Your task to perform on an android device: Show me popular videos on Youtube Image 0: 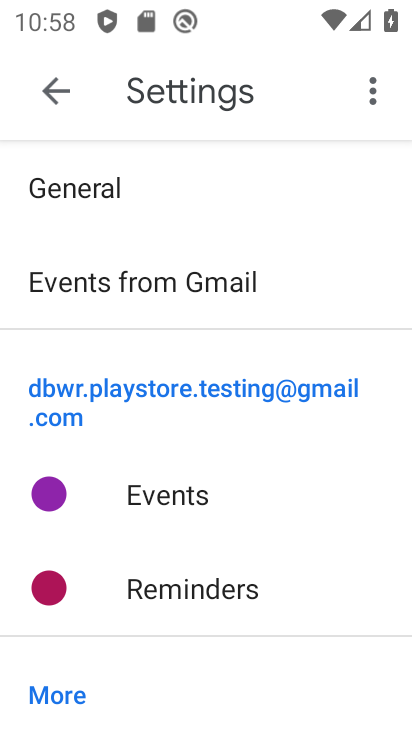
Step 0: press home button
Your task to perform on an android device: Show me popular videos on Youtube Image 1: 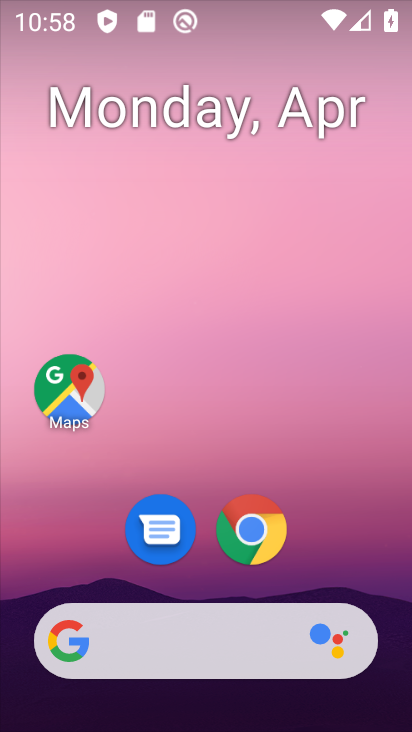
Step 1: drag from (354, 589) to (131, 26)
Your task to perform on an android device: Show me popular videos on Youtube Image 2: 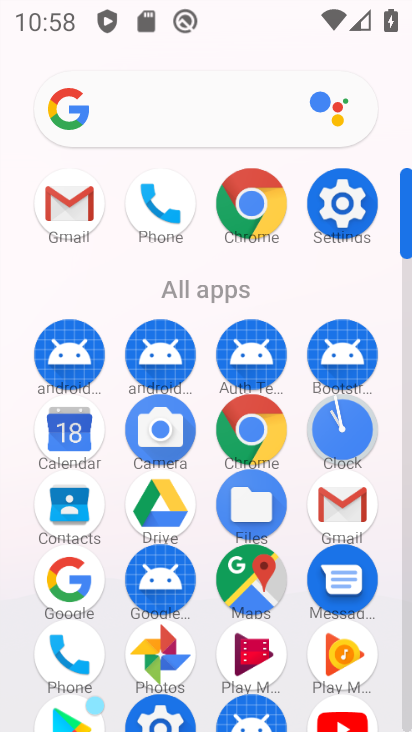
Step 2: click (410, 727)
Your task to perform on an android device: Show me popular videos on Youtube Image 3: 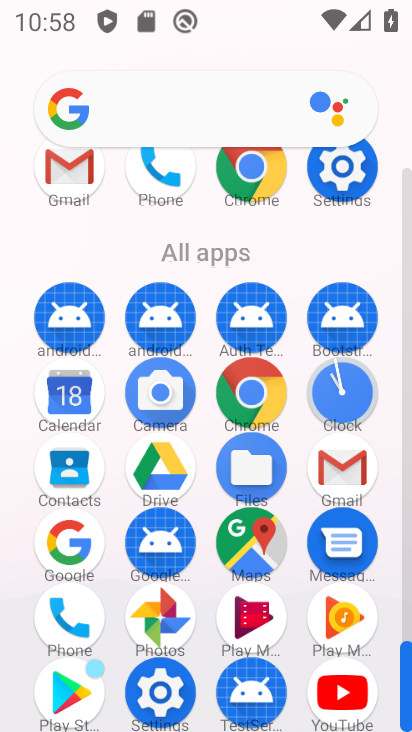
Step 3: click (328, 680)
Your task to perform on an android device: Show me popular videos on Youtube Image 4: 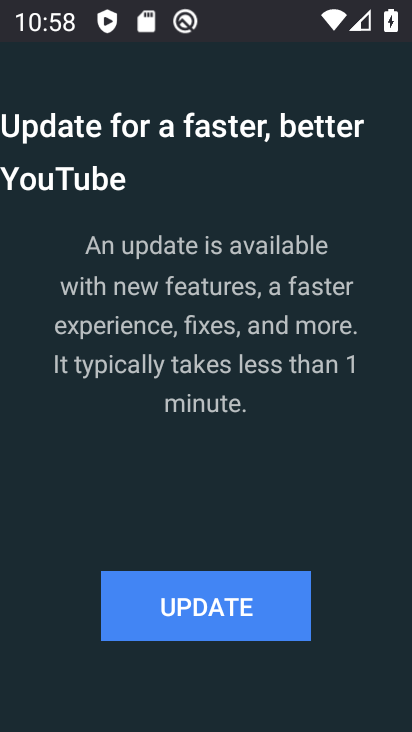
Step 4: click (200, 618)
Your task to perform on an android device: Show me popular videos on Youtube Image 5: 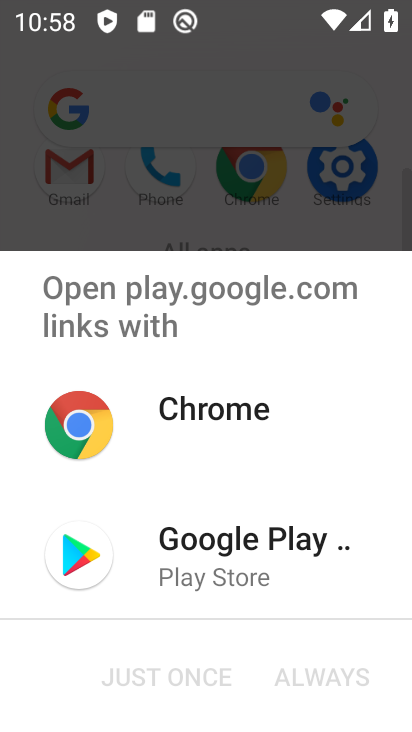
Step 5: click (133, 536)
Your task to perform on an android device: Show me popular videos on Youtube Image 6: 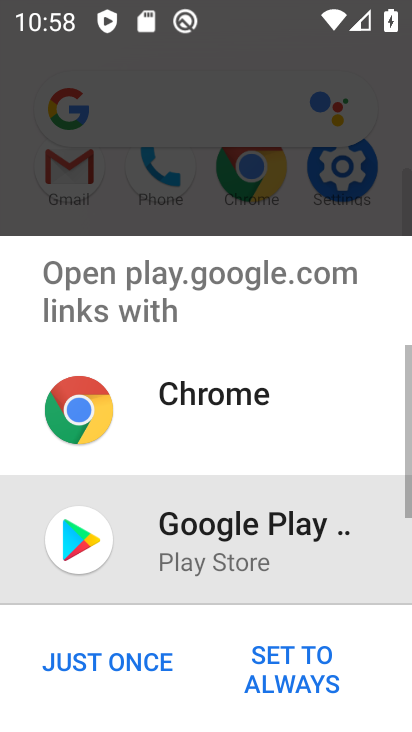
Step 6: click (142, 661)
Your task to perform on an android device: Show me popular videos on Youtube Image 7: 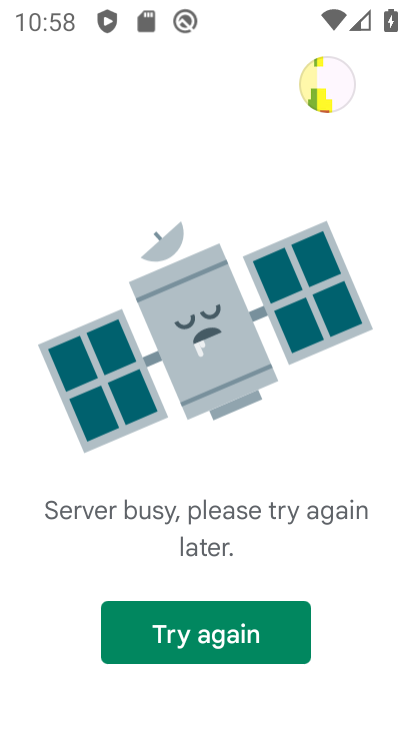
Step 7: click (146, 656)
Your task to perform on an android device: Show me popular videos on Youtube Image 8: 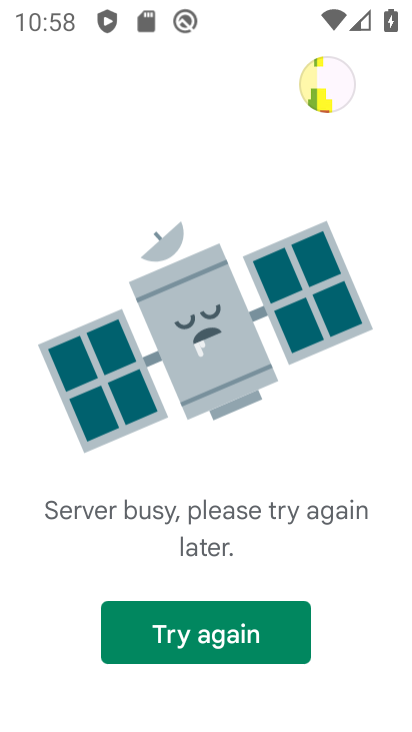
Step 8: task complete